Your task to perform on an android device: Search for vegetarian restaurants on Maps Image 0: 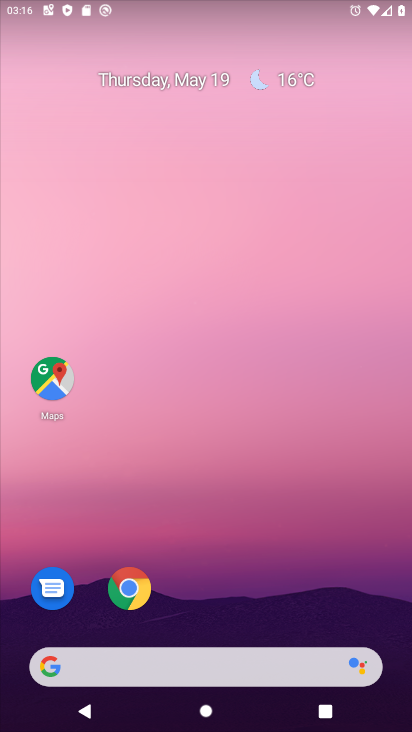
Step 0: click (53, 380)
Your task to perform on an android device: Search for vegetarian restaurants on Maps Image 1: 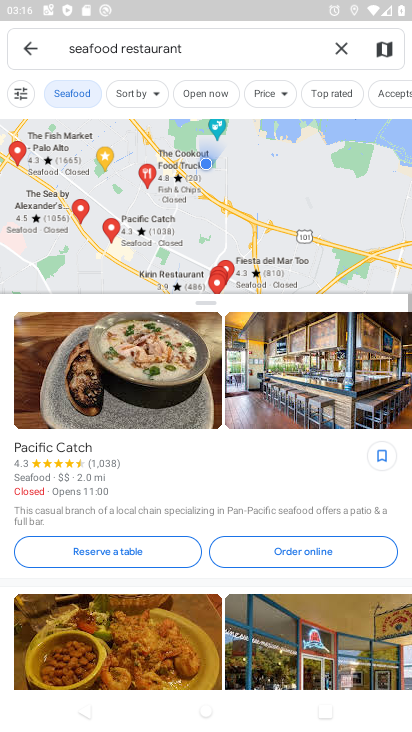
Step 1: click (337, 51)
Your task to perform on an android device: Search for vegetarian restaurants on Maps Image 2: 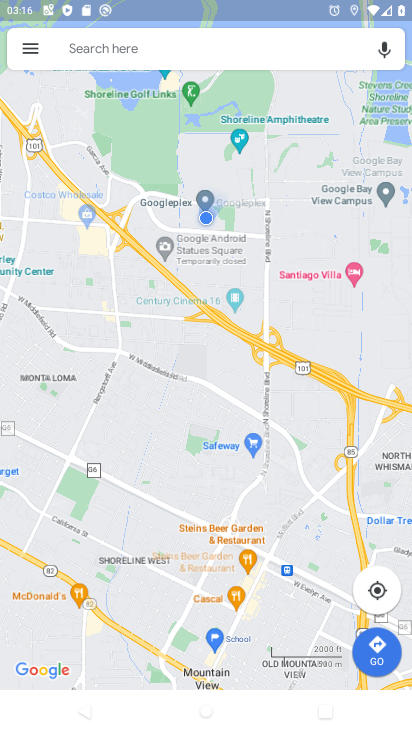
Step 2: click (237, 47)
Your task to perform on an android device: Search for vegetarian restaurants on Maps Image 3: 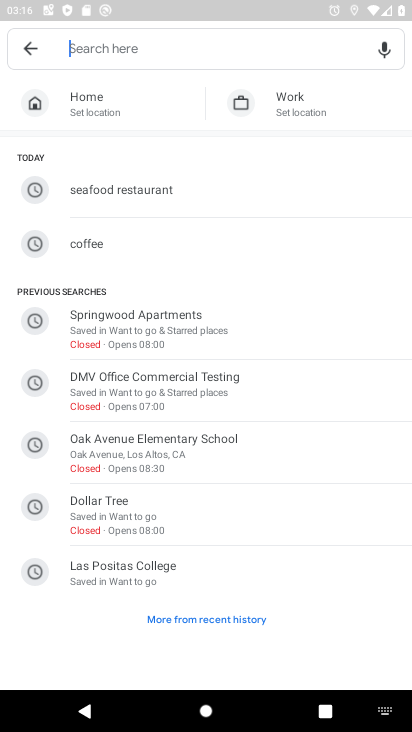
Step 3: type "vegetarian restaurent"
Your task to perform on an android device: Search for vegetarian restaurants on Maps Image 4: 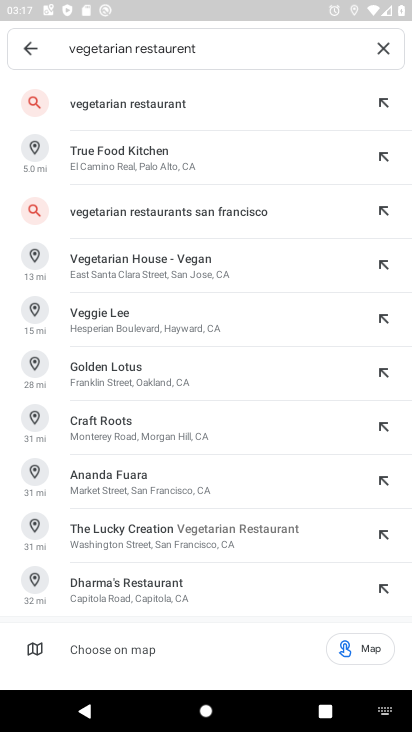
Step 4: click (164, 101)
Your task to perform on an android device: Search for vegetarian restaurants on Maps Image 5: 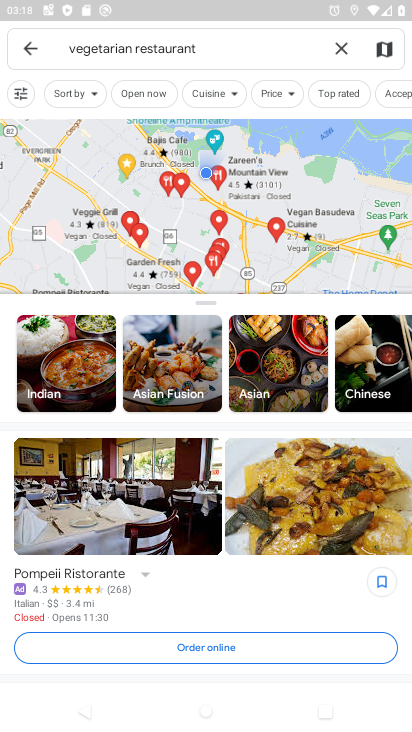
Step 5: task complete